Your task to perform on an android device: What is the news today? Image 0: 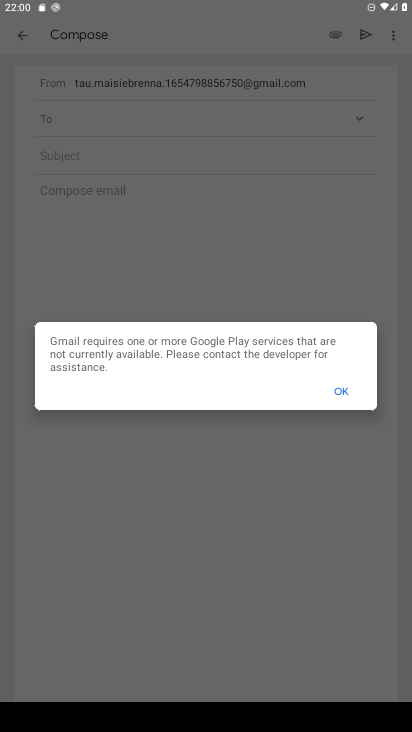
Step 0: press home button
Your task to perform on an android device: What is the news today? Image 1: 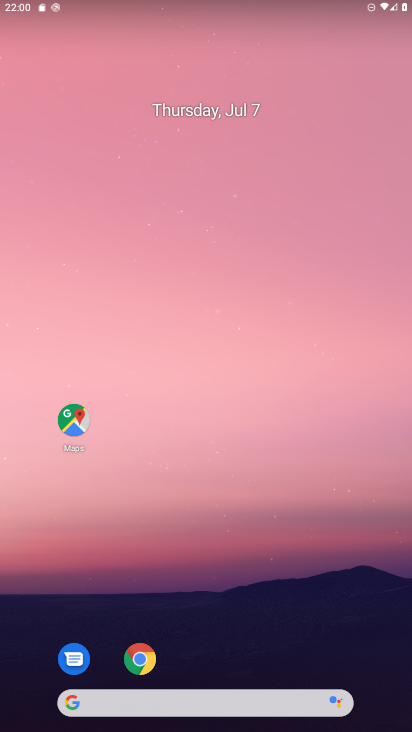
Step 1: drag from (11, 281) to (379, 283)
Your task to perform on an android device: What is the news today? Image 2: 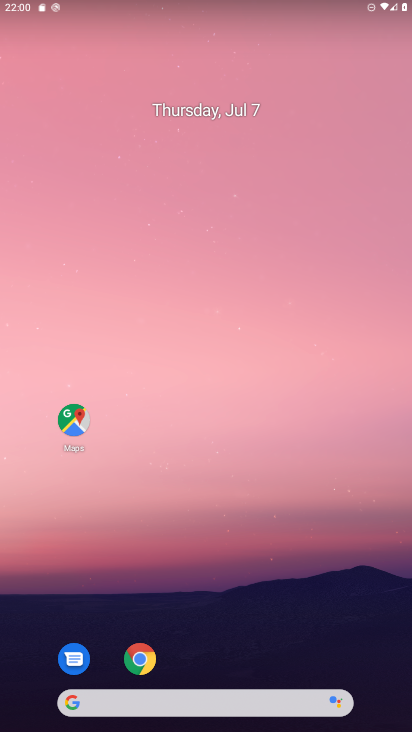
Step 2: drag from (16, 267) to (297, 298)
Your task to perform on an android device: What is the news today? Image 3: 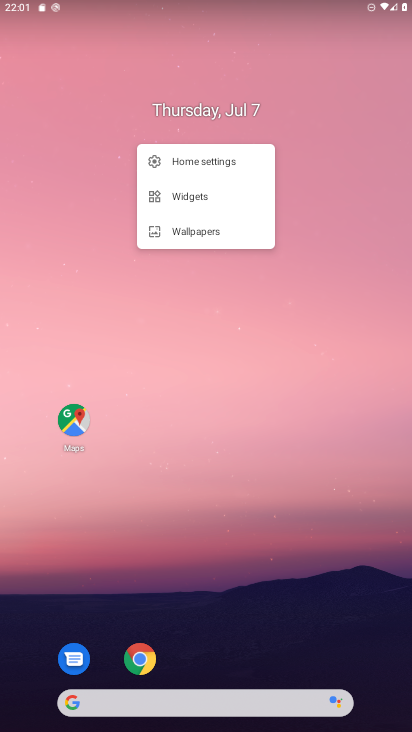
Step 3: click (48, 312)
Your task to perform on an android device: What is the news today? Image 4: 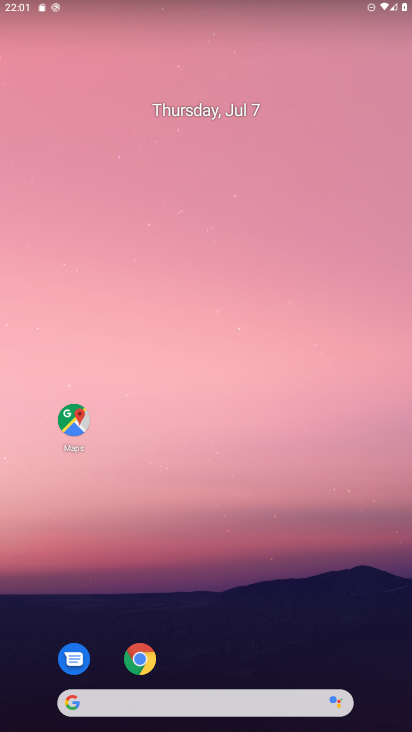
Step 4: task complete